Your task to perform on an android device: empty trash in the gmail app Image 0: 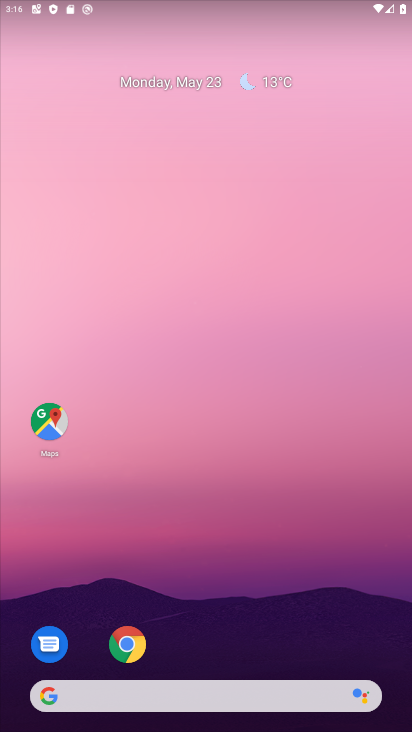
Step 0: drag from (268, 556) to (241, 184)
Your task to perform on an android device: empty trash in the gmail app Image 1: 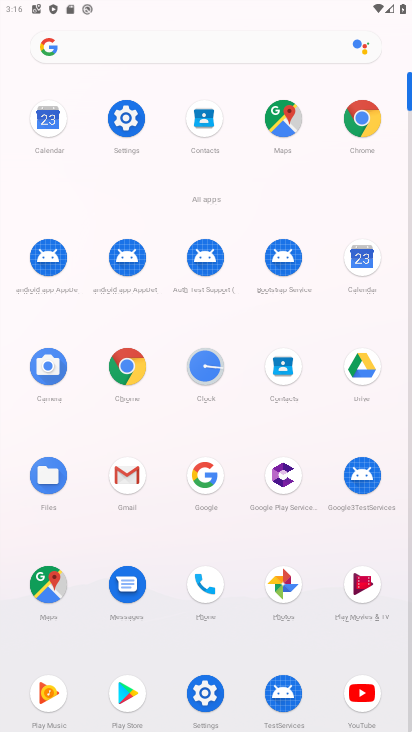
Step 1: click (133, 475)
Your task to perform on an android device: empty trash in the gmail app Image 2: 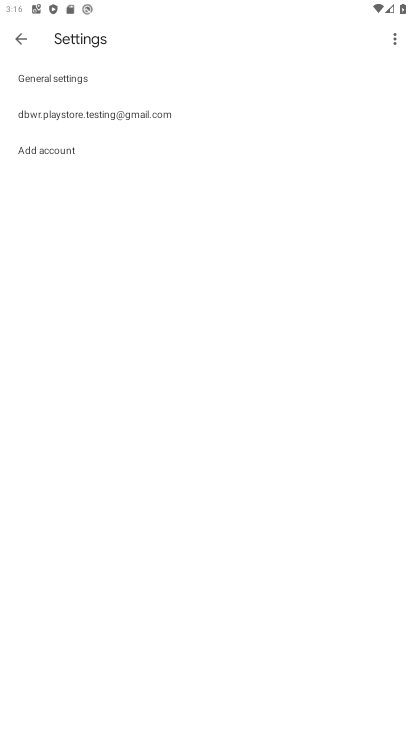
Step 2: click (107, 124)
Your task to perform on an android device: empty trash in the gmail app Image 3: 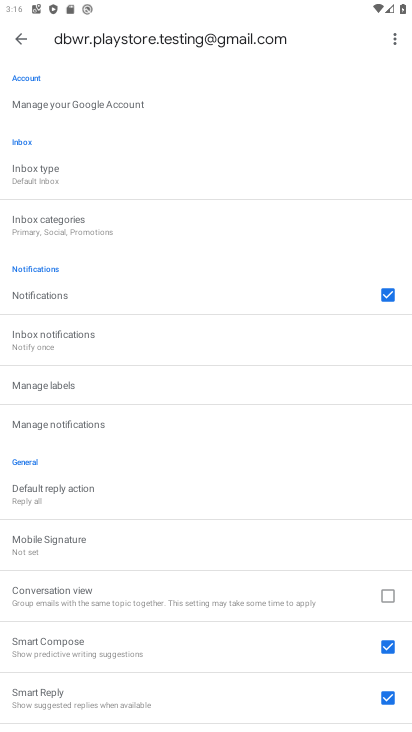
Step 3: click (17, 36)
Your task to perform on an android device: empty trash in the gmail app Image 4: 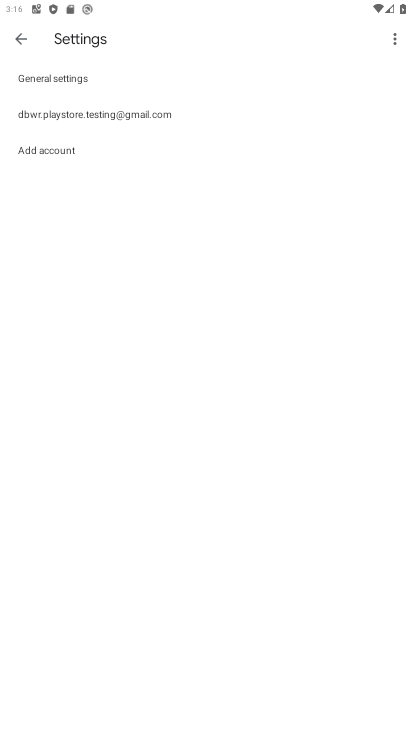
Step 4: click (17, 35)
Your task to perform on an android device: empty trash in the gmail app Image 5: 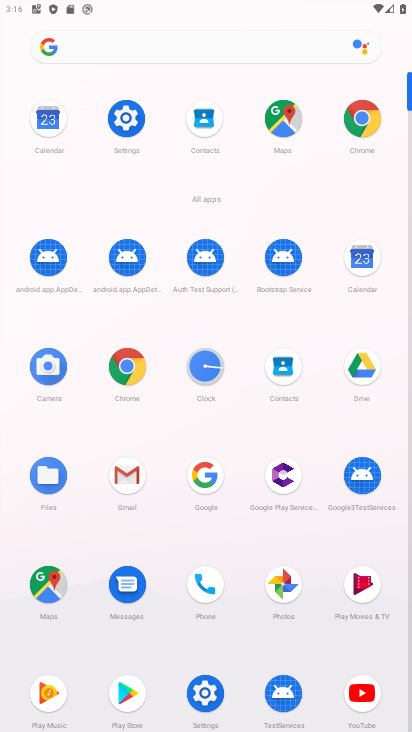
Step 5: click (128, 472)
Your task to perform on an android device: empty trash in the gmail app Image 6: 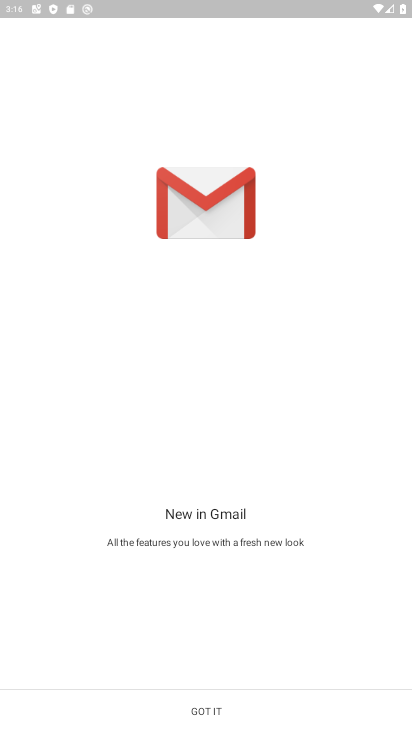
Step 6: click (206, 703)
Your task to perform on an android device: empty trash in the gmail app Image 7: 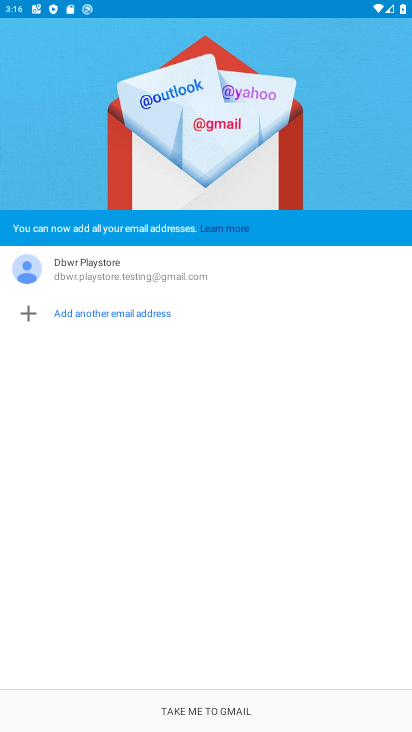
Step 7: click (206, 704)
Your task to perform on an android device: empty trash in the gmail app Image 8: 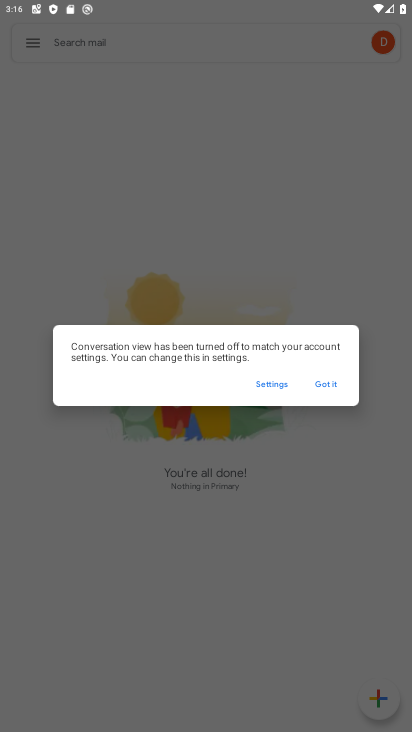
Step 8: click (330, 385)
Your task to perform on an android device: empty trash in the gmail app Image 9: 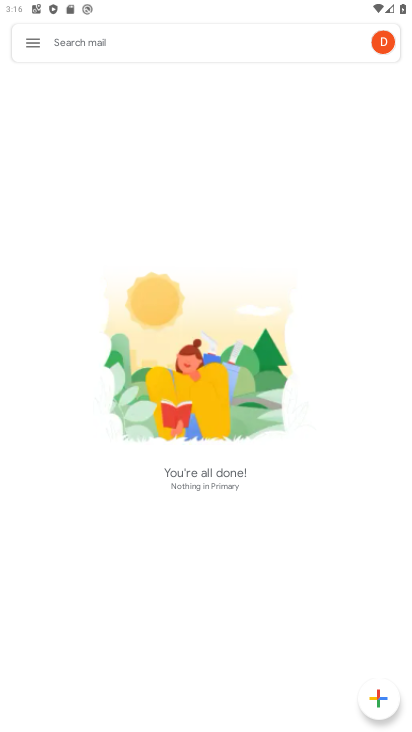
Step 9: click (29, 42)
Your task to perform on an android device: empty trash in the gmail app Image 10: 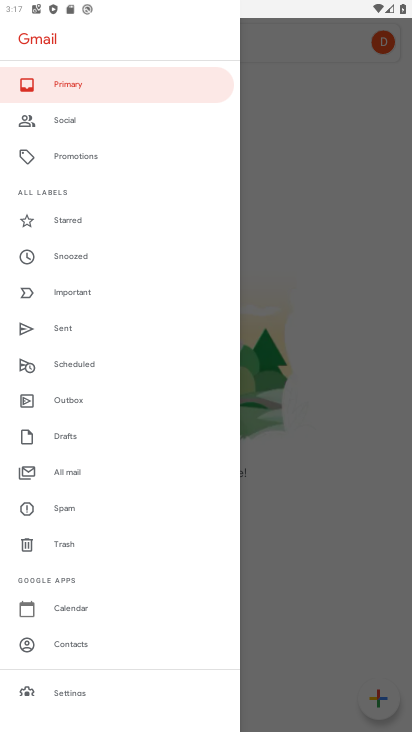
Step 10: click (71, 544)
Your task to perform on an android device: empty trash in the gmail app Image 11: 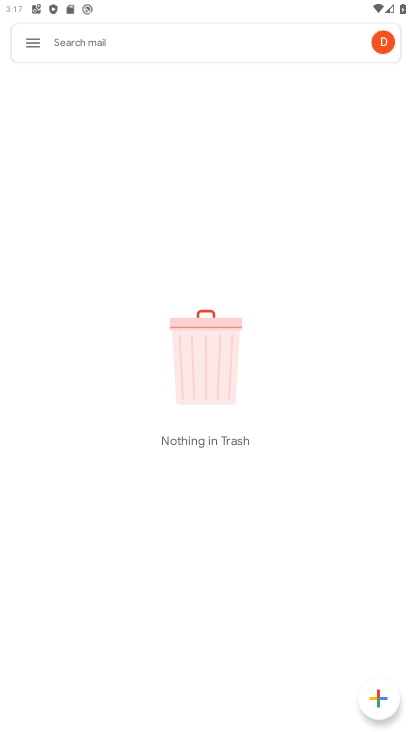
Step 11: task complete